Your task to perform on an android device: turn on data saver in the chrome app Image 0: 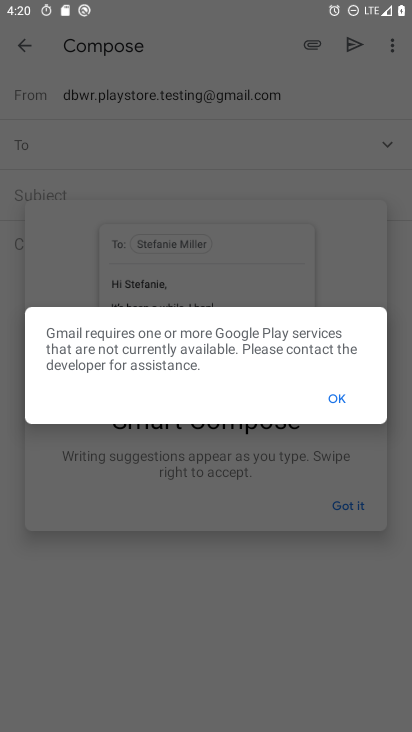
Step 0: press home button
Your task to perform on an android device: turn on data saver in the chrome app Image 1: 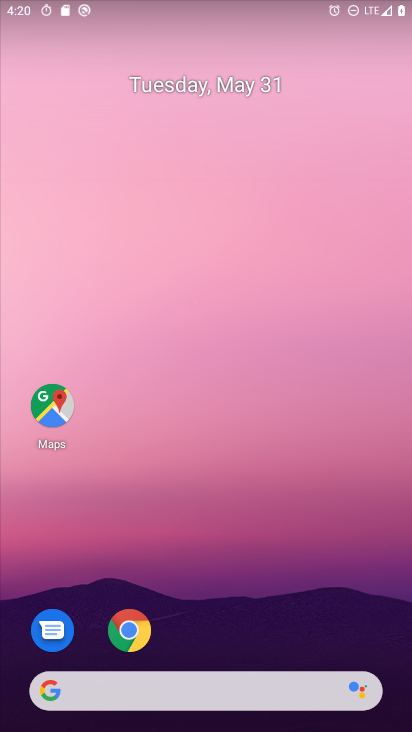
Step 1: drag from (339, 558) to (410, 544)
Your task to perform on an android device: turn on data saver in the chrome app Image 2: 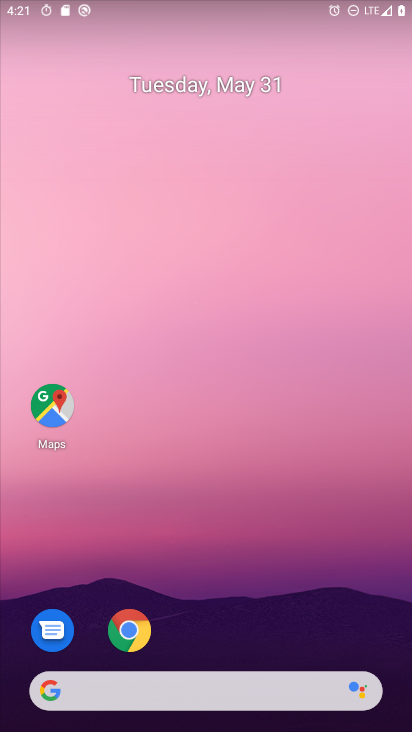
Step 2: drag from (261, 678) to (245, 9)
Your task to perform on an android device: turn on data saver in the chrome app Image 3: 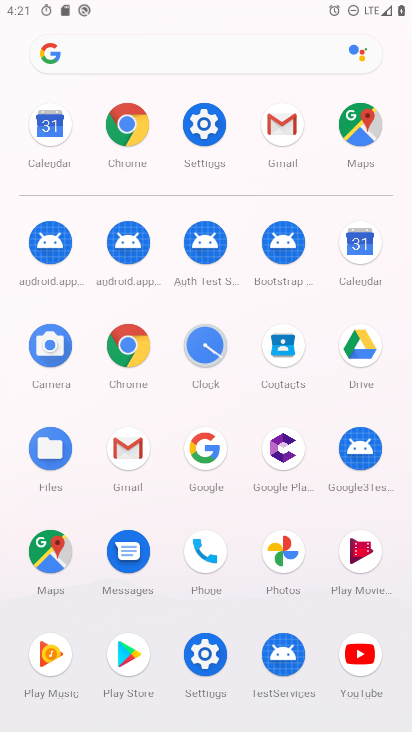
Step 3: click (123, 350)
Your task to perform on an android device: turn on data saver in the chrome app Image 4: 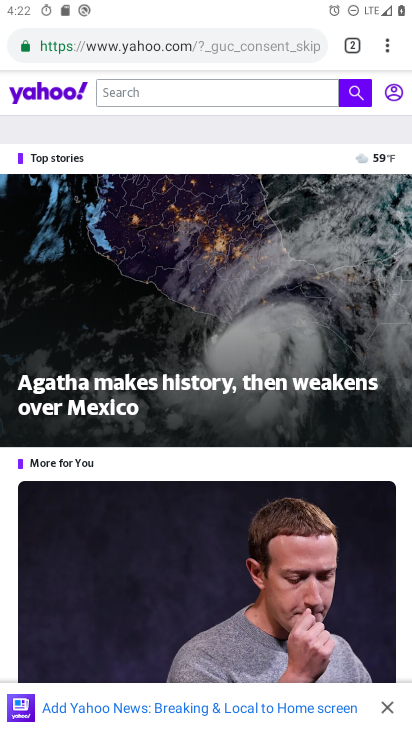
Step 4: click (398, 46)
Your task to perform on an android device: turn on data saver in the chrome app Image 5: 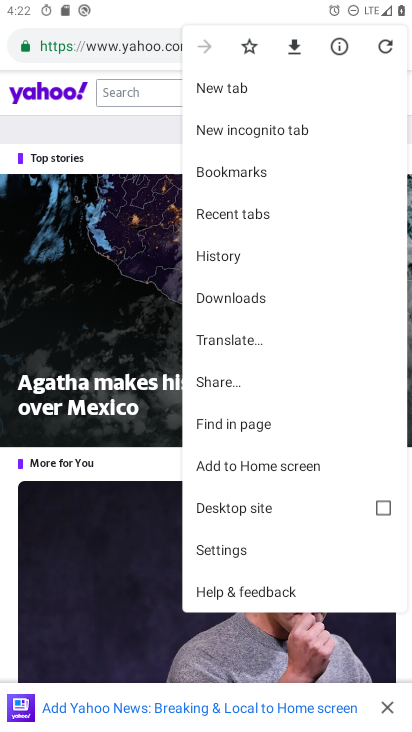
Step 5: click (266, 554)
Your task to perform on an android device: turn on data saver in the chrome app Image 6: 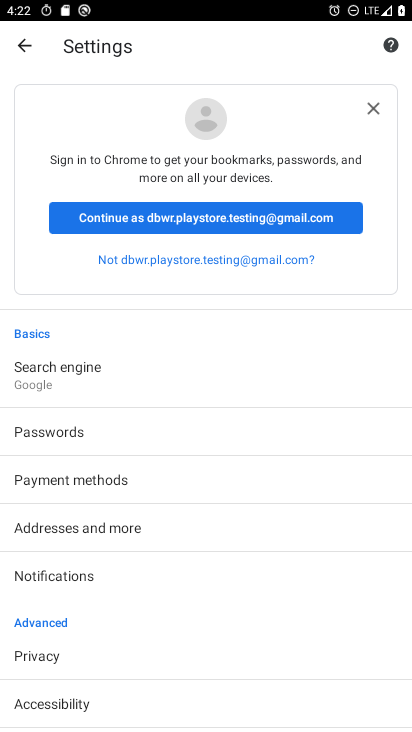
Step 6: drag from (82, 633) to (132, 250)
Your task to perform on an android device: turn on data saver in the chrome app Image 7: 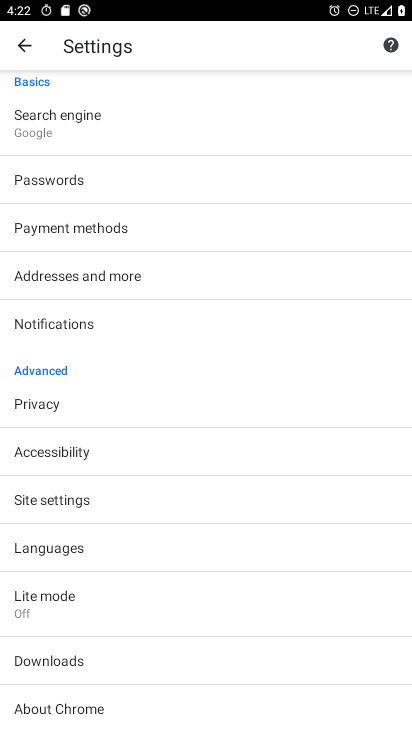
Step 7: click (79, 603)
Your task to perform on an android device: turn on data saver in the chrome app Image 8: 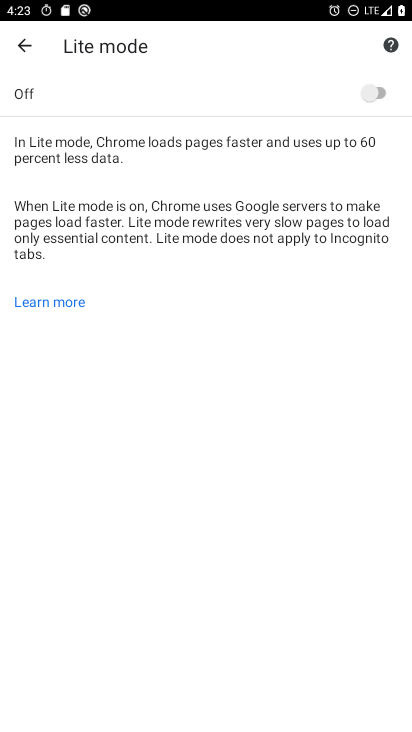
Step 8: click (382, 93)
Your task to perform on an android device: turn on data saver in the chrome app Image 9: 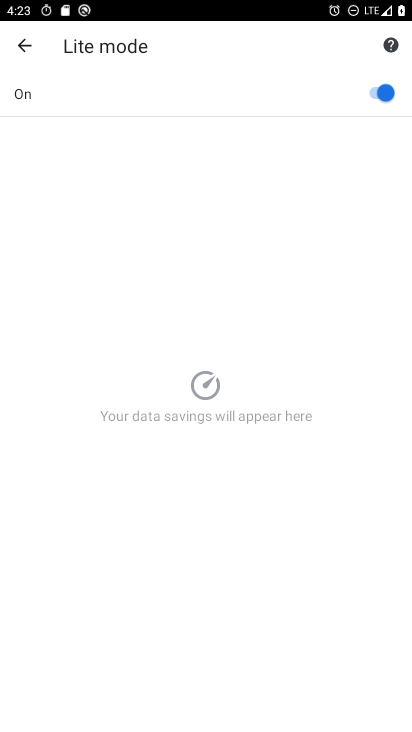
Step 9: task complete